Your task to perform on an android device: Open Chrome and go to settings Image 0: 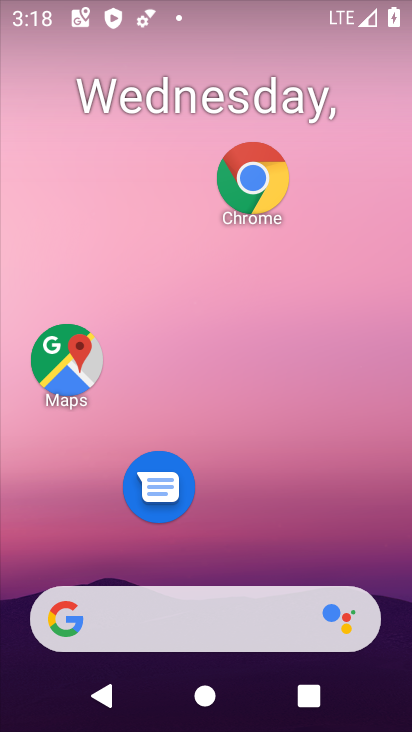
Step 0: click (254, 168)
Your task to perform on an android device: Open Chrome and go to settings Image 1: 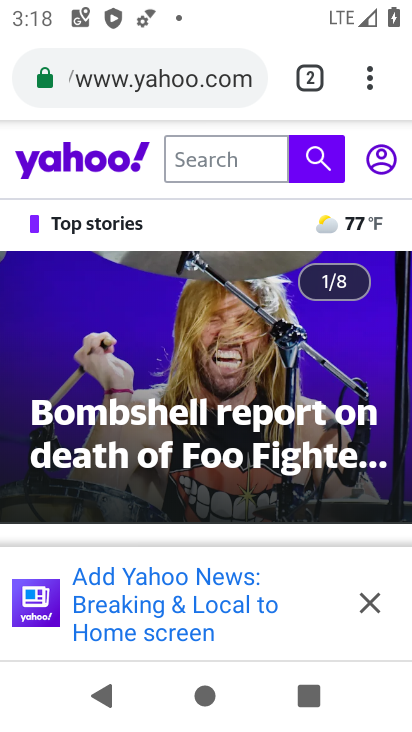
Step 1: click (373, 82)
Your task to perform on an android device: Open Chrome and go to settings Image 2: 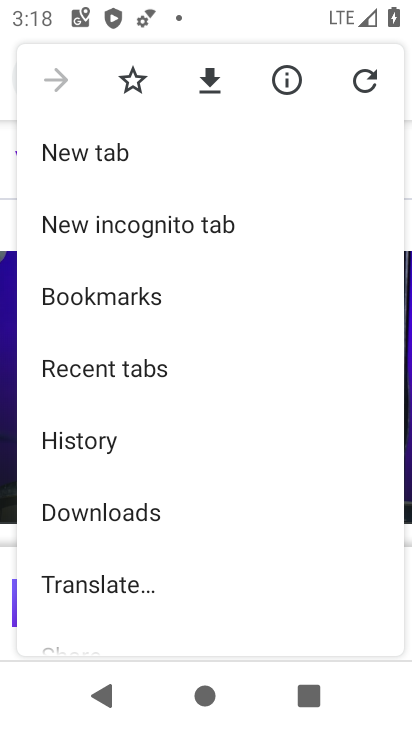
Step 2: drag from (71, 566) to (150, 287)
Your task to perform on an android device: Open Chrome and go to settings Image 3: 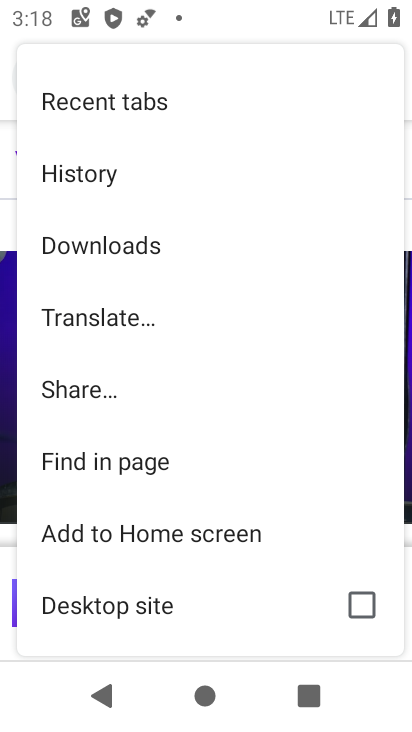
Step 3: drag from (131, 569) to (182, 337)
Your task to perform on an android device: Open Chrome and go to settings Image 4: 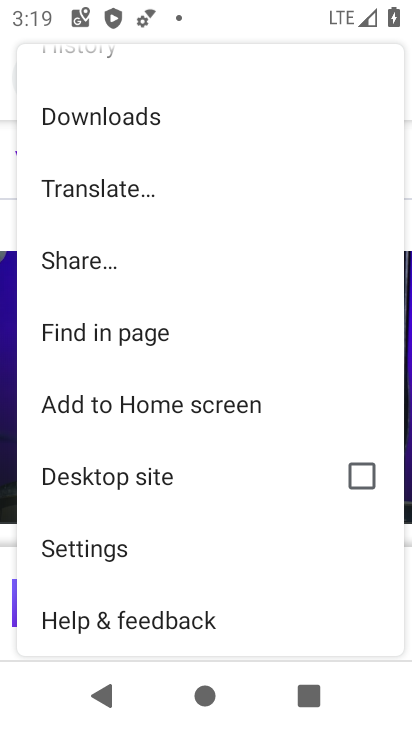
Step 4: click (130, 553)
Your task to perform on an android device: Open Chrome and go to settings Image 5: 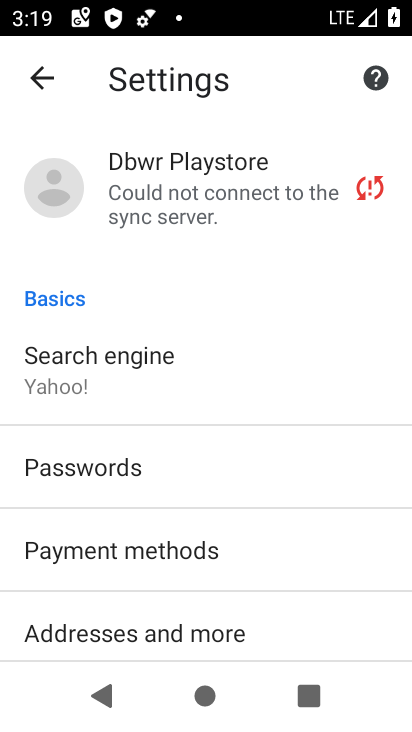
Step 5: task complete